Your task to perform on an android device: see sites visited before in the chrome app Image 0: 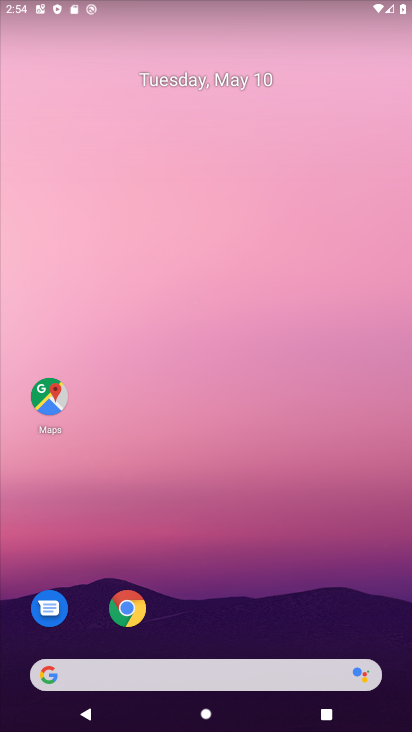
Step 0: click (145, 608)
Your task to perform on an android device: see sites visited before in the chrome app Image 1: 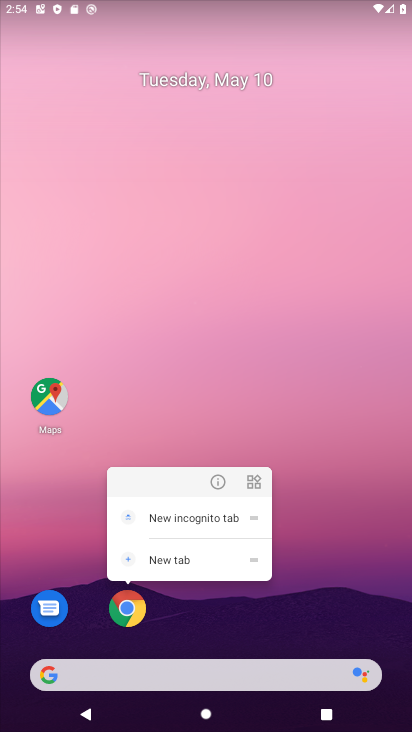
Step 1: click (106, 611)
Your task to perform on an android device: see sites visited before in the chrome app Image 2: 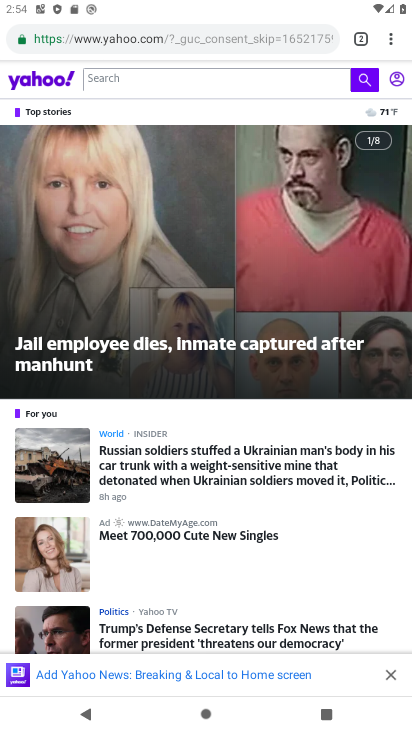
Step 2: click (398, 41)
Your task to perform on an android device: see sites visited before in the chrome app Image 3: 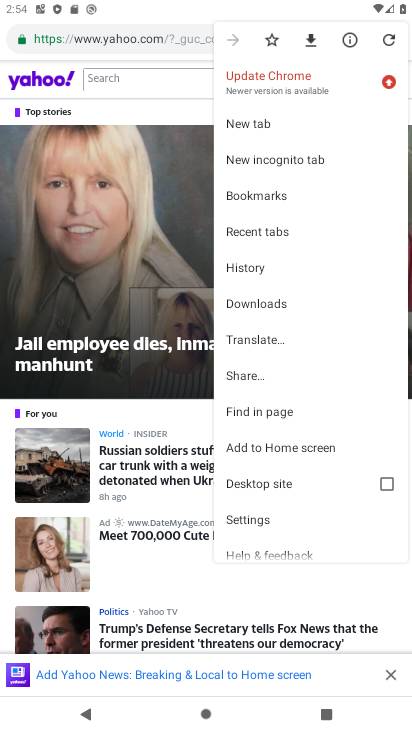
Step 3: click (251, 510)
Your task to perform on an android device: see sites visited before in the chrome app Image 4: 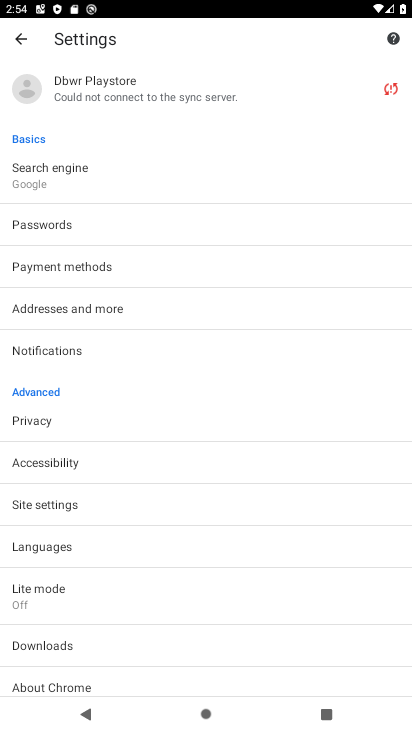
Step 4: press back button
Your task to perform on an android device: see sites visited before in the chrome app Image 5: 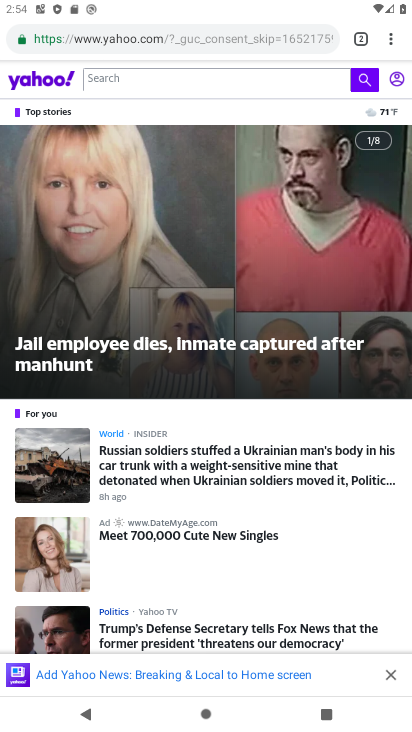
Step 5: click (391, 37)
Your task to perform on an android device: see sites visited before in the chrome app Image 6: 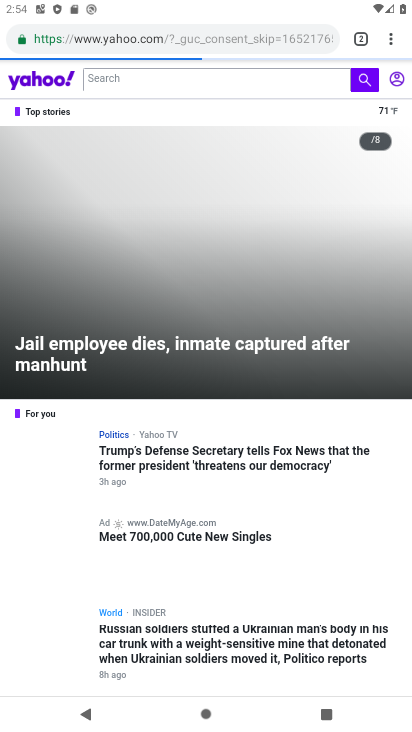
Step 6: click (399, 33)
Your task to perform on an android device: see sites visited before in the chrome app Image 7: 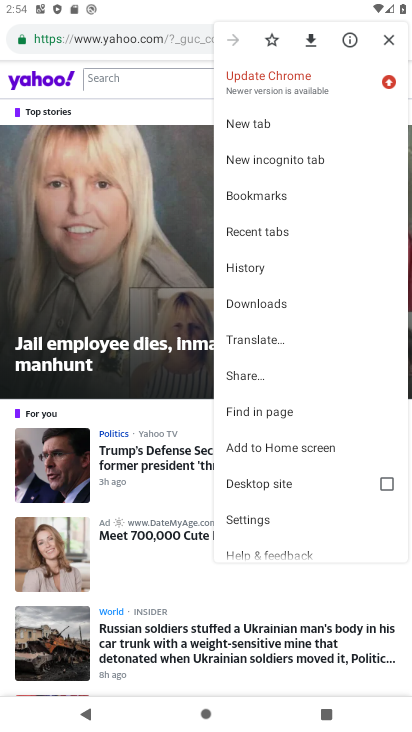
Step 7: click (270, 274)
Your task to perform on an android device: see sites visited before in the chrome app Image 8: 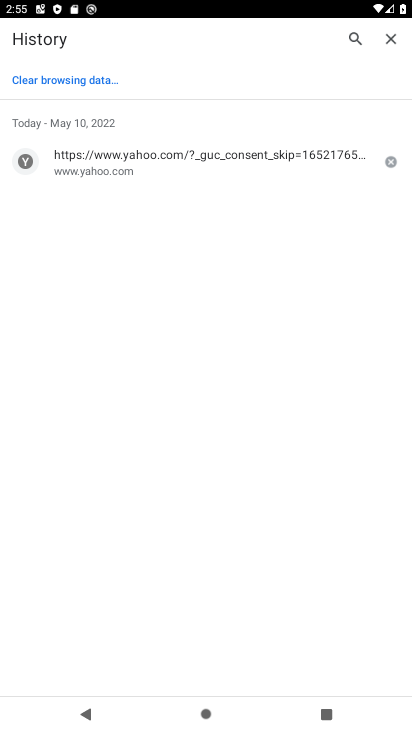
Step 8: task complete